Your task to perform on an android device: open app "Google Drive" (install if not already installed) Image 0: 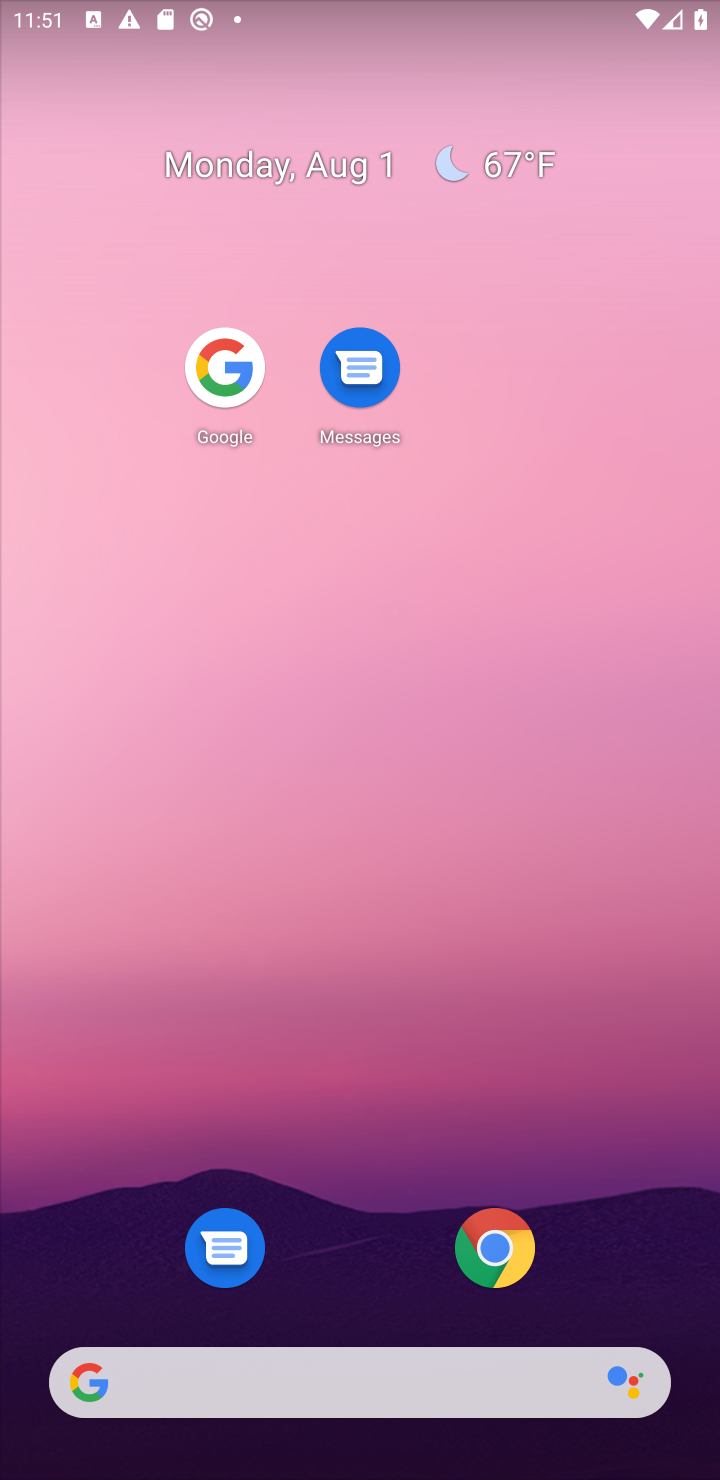
Step 0: drag from (612, 818) to (555, 92)
Your task to perform on an android device: open app "Google Drive" (install if not already installed) Image 1: 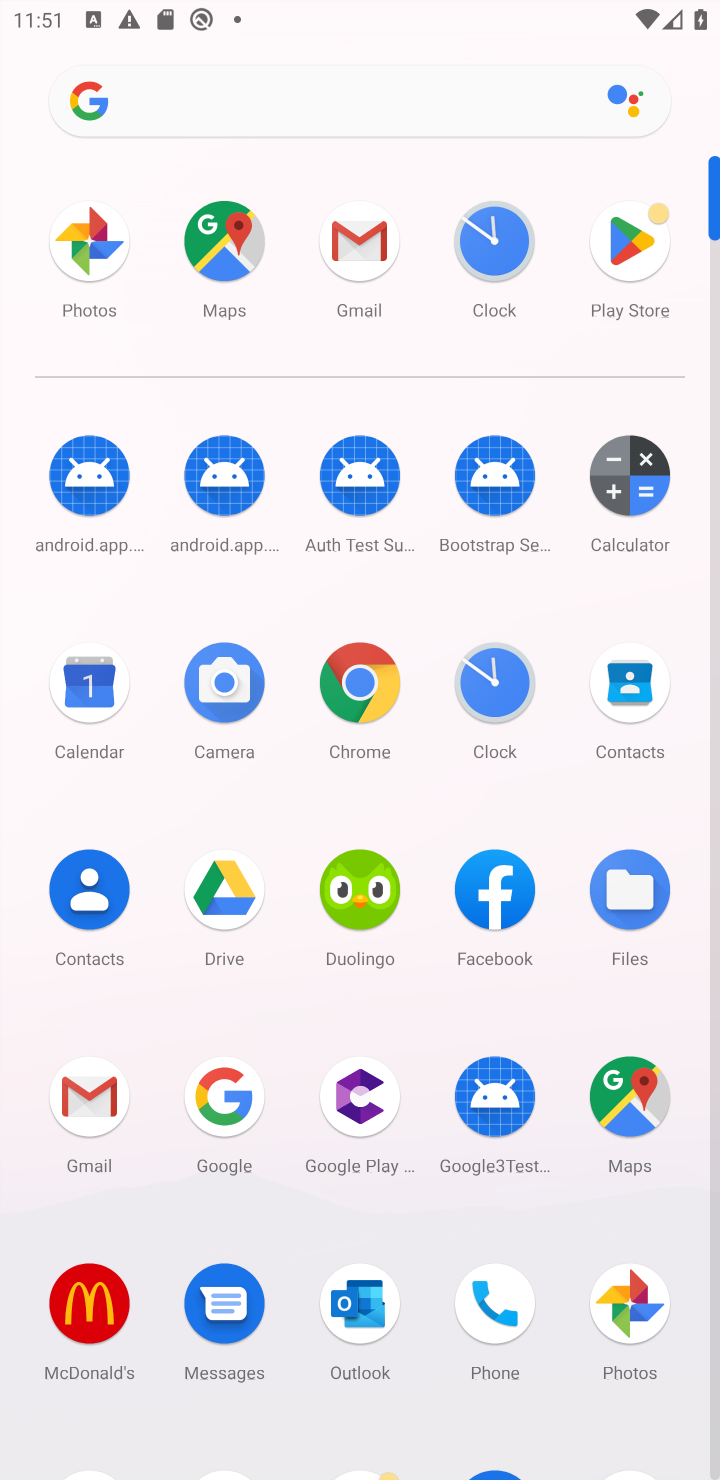
Step 1: drag from (399, 1182) to (438, 566)
Your task to perform on an android device: open app "Google Drive" (install if not already installed) Image 2: 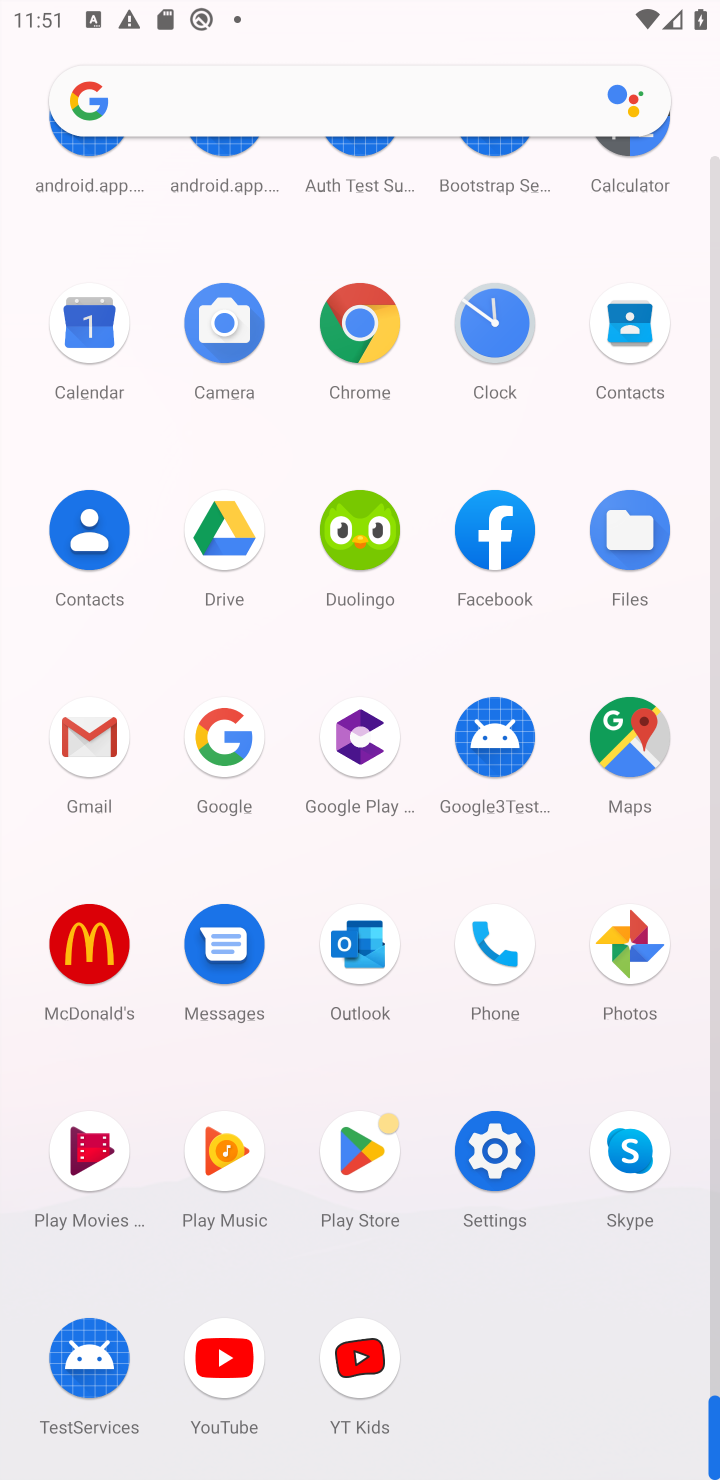
Step 2: click (355, 1144)
Your task to perform on an android device: open app "Google Drive" (install if not already installed) Image 3: 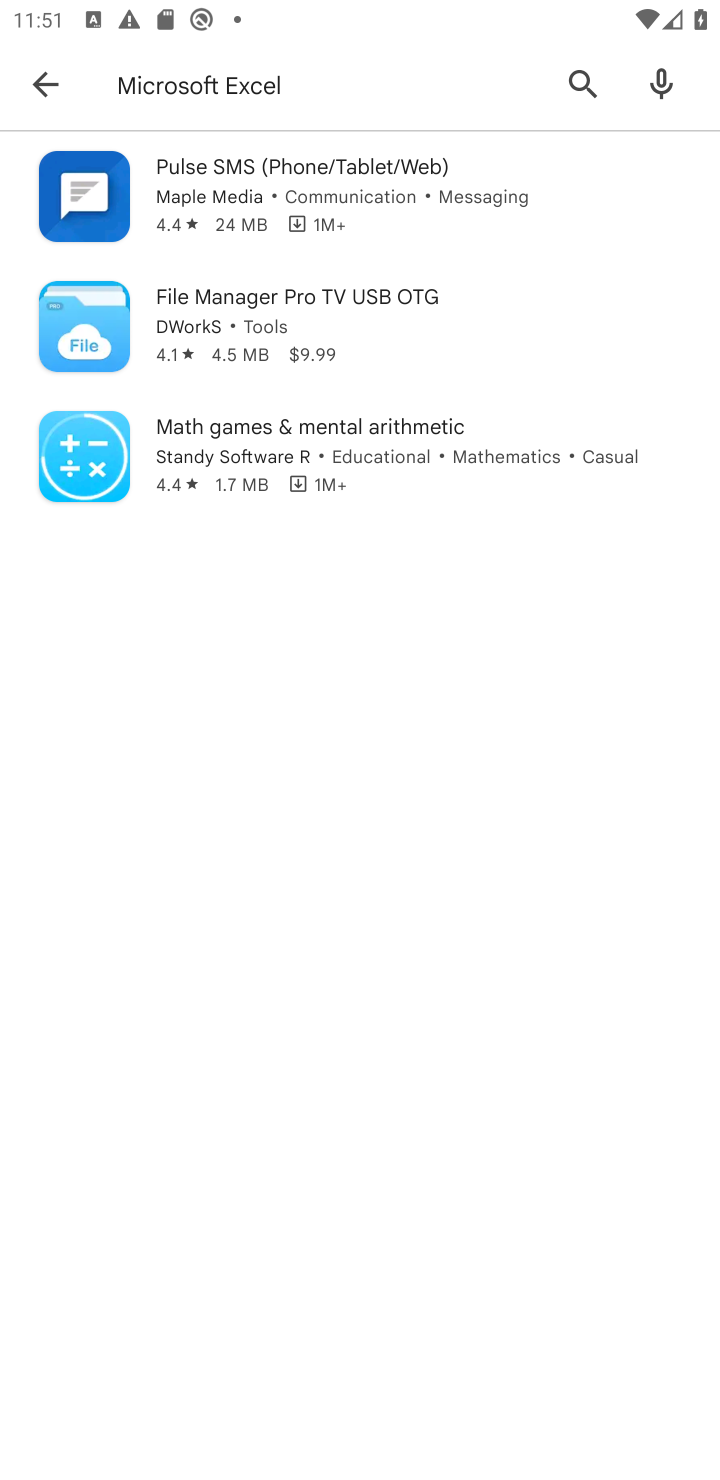
Step 3: click (348, 79)
Your task to perform on an android device: open app "Google Drive" (install if not already installed) Image 4: 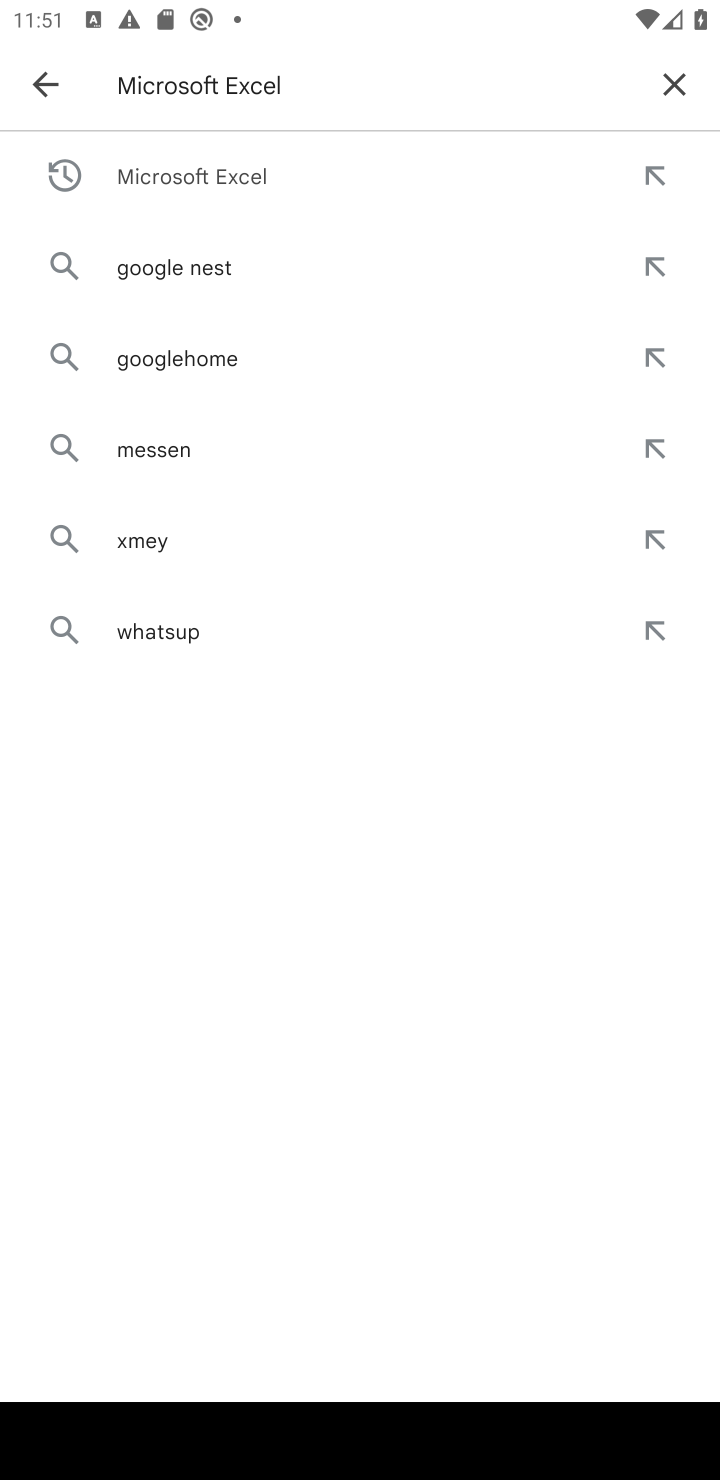
Step 4: click (672, 63)
Your task to perform on an android device: open app "Google Drive" (install if not already installed) Image 5: 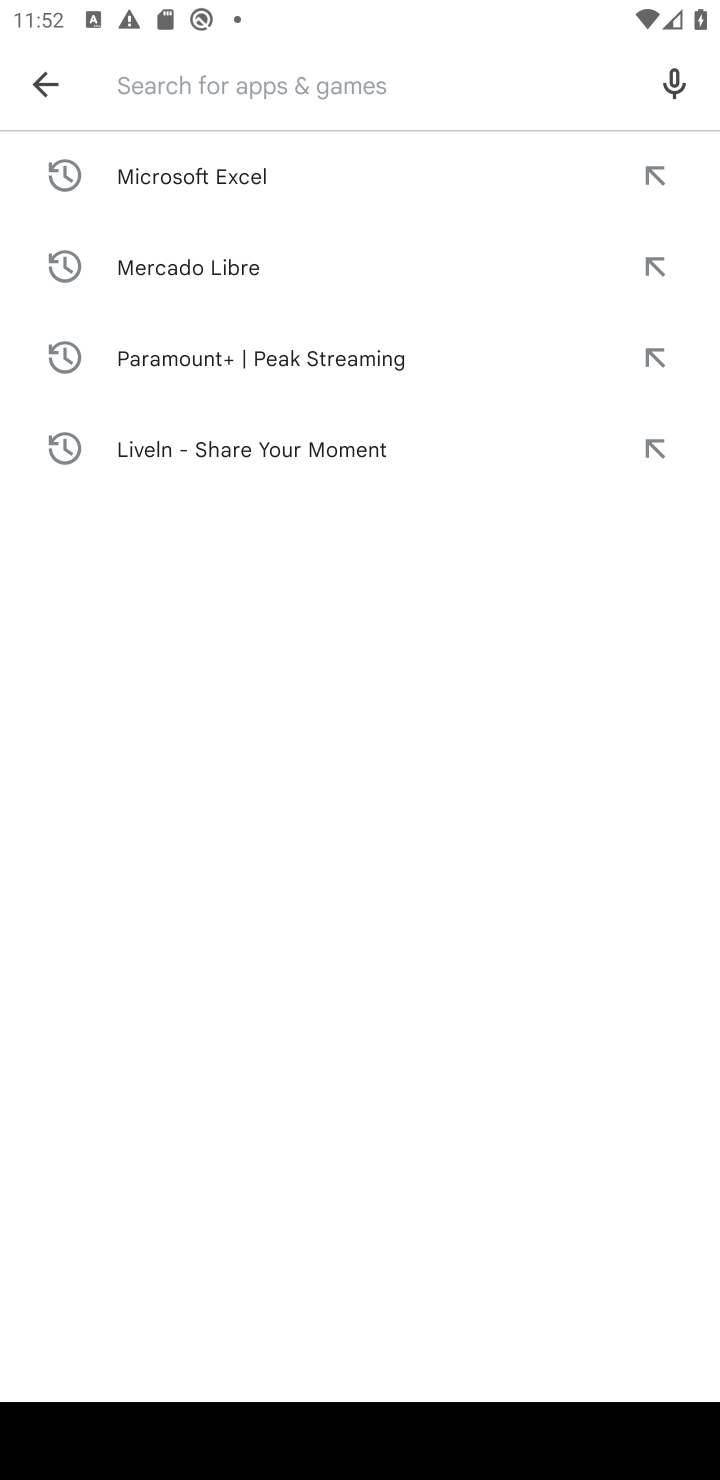
Step 5: type "Google Drive"
Your task to perform on an android device: open app "Google Drive" (install if not already installed) Image 6: 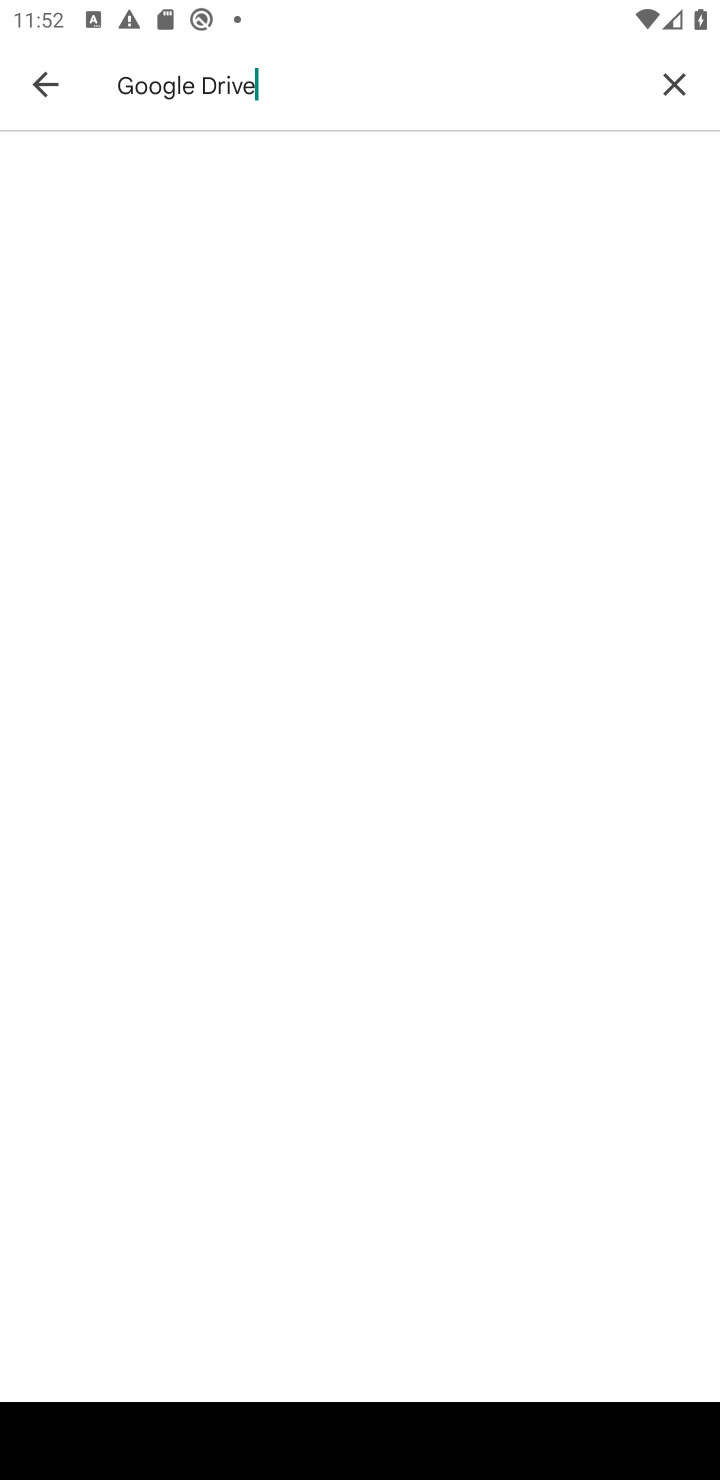
Step 6: press enter
Your task to perform on an android device: open app "Google Drive" (install if not already installed) Image 7: 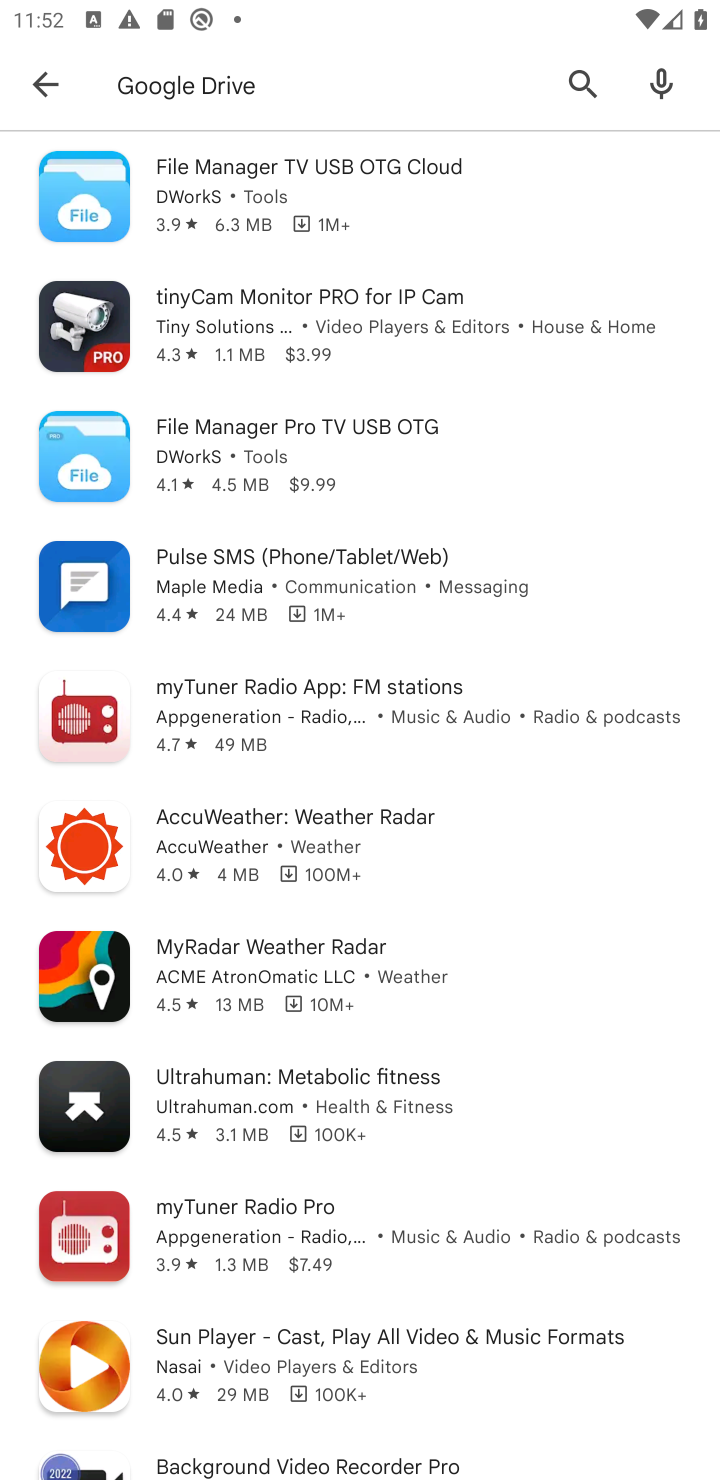
Step 7: task complete